Your task to perform on an android device: delete the emails in spam in the gmail app Image 0: 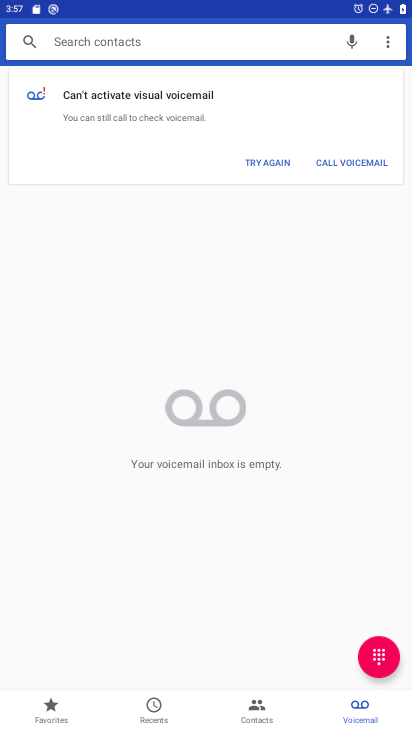
Step 0: press home button
Your task to perform on an android device: delete the emails in spam in the gmail app Image 1: 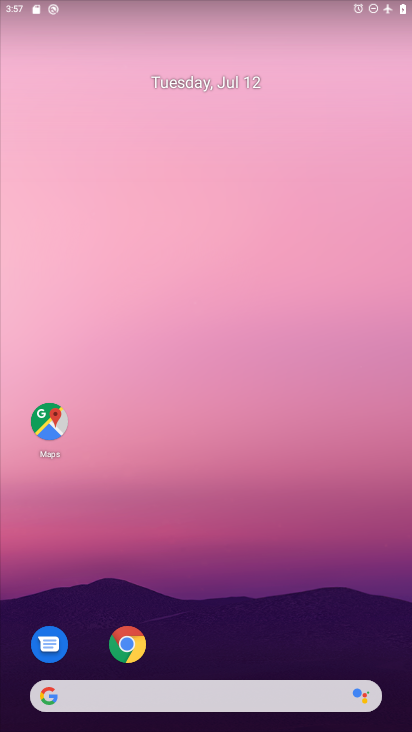
Step 1: drag from (268, 615) to (275, 67)
Your task to perform on an android device: delete the emails in spam in the gmail app Image 2: 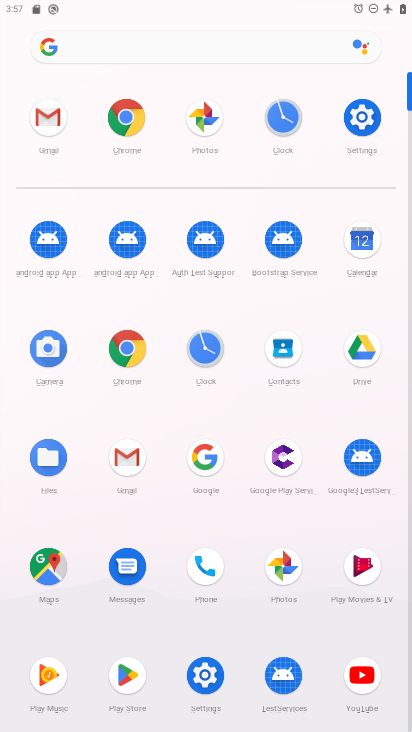
Step 2: click (45, 114)
Your task to perform on an android device: delete the emails in spam in the gmail app Image 3: 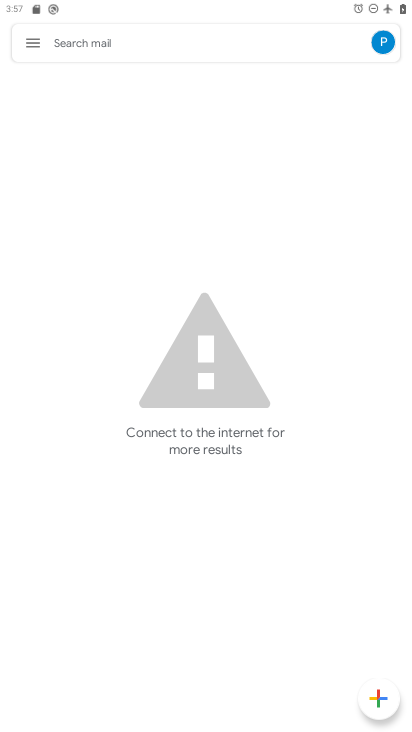
Step 3: click (35, 35)
Your task to perform on an android device: delete the emails in spam in the gmail app Image 4: 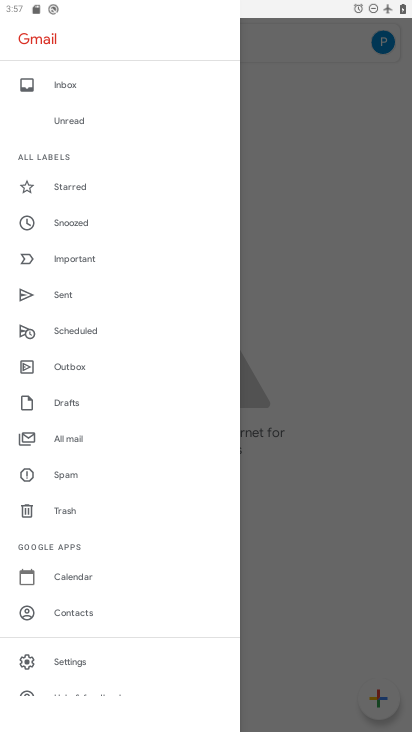
Step 4: click (70, 475)
Your task to perform on an android device: delete the emails in spam in the gmail app Image 5: 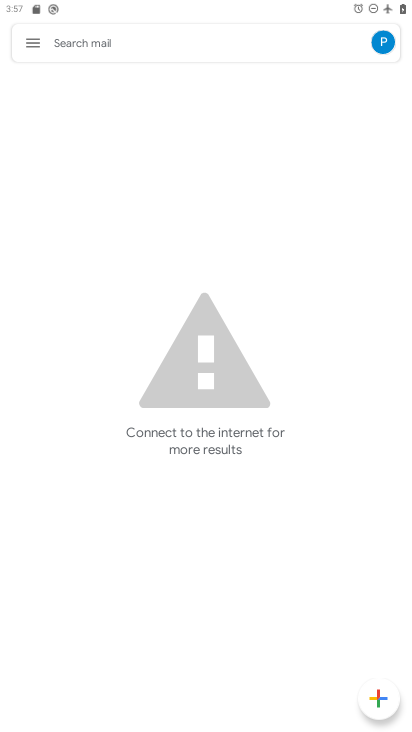
Step 5: task complete